Your task to perform on an android device: all mails in gmail Image 0: 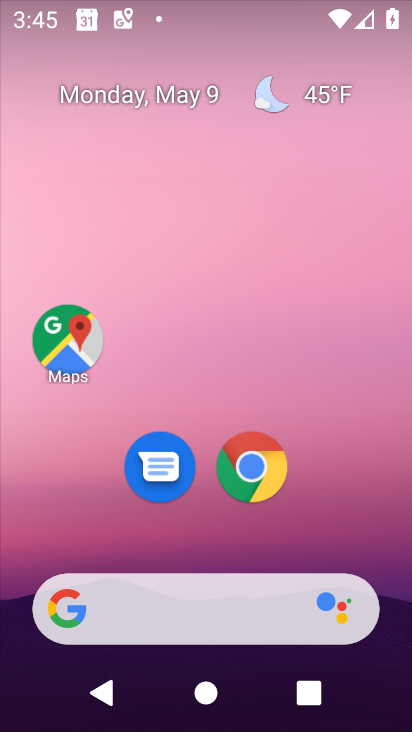
Step 0: drag from (350, 497) to (410, 215)
Your task to perform on an android device: all mails in gmail Image 1: 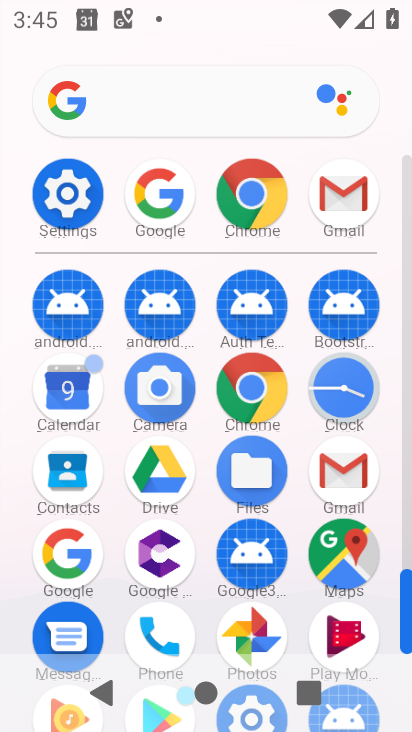
Step 1: click (363, 194)
Your task to perform on an android device: all mails in gmail Image 2: 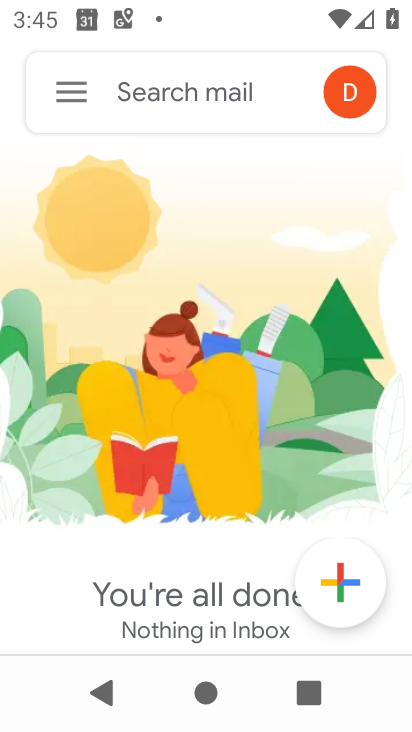
Step 2: click (65, 98)
Your task to perform on an android device: all mails in gmail Image 3: 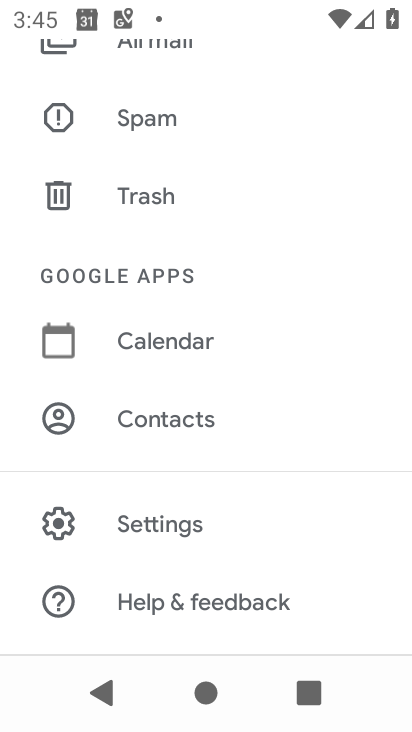
Step 3: drag from (233, 216) to (283, 515)
Your task to perform on an android device: all mails in gmail Image 4: 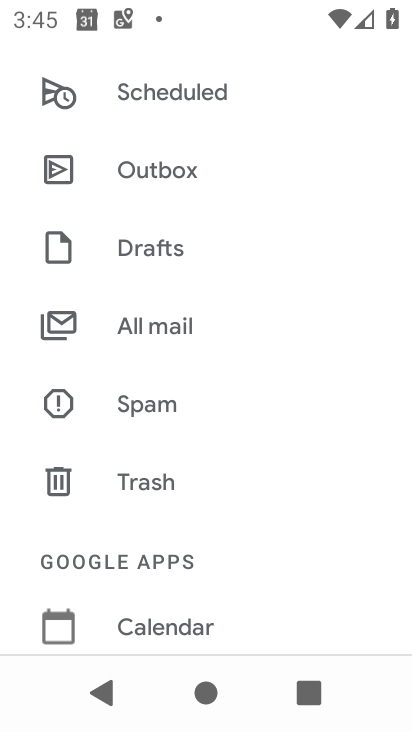
Step 4: click (212, 314)
Your task to perform on an android device: all mails in gmail Image 5: 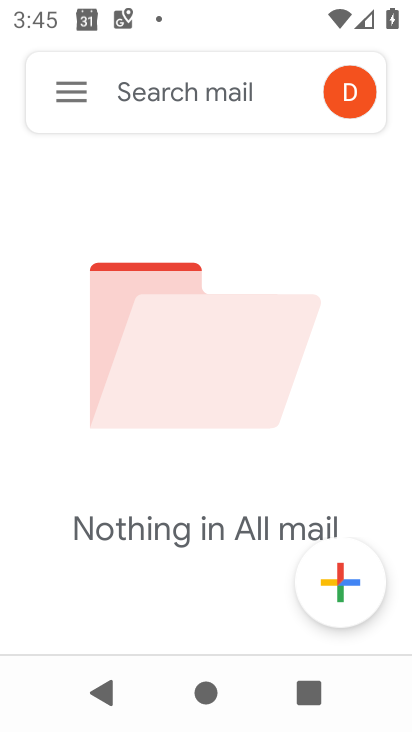
Step 5: task complete